Your task to perform on an android device: turn off sleep mode Image 0: 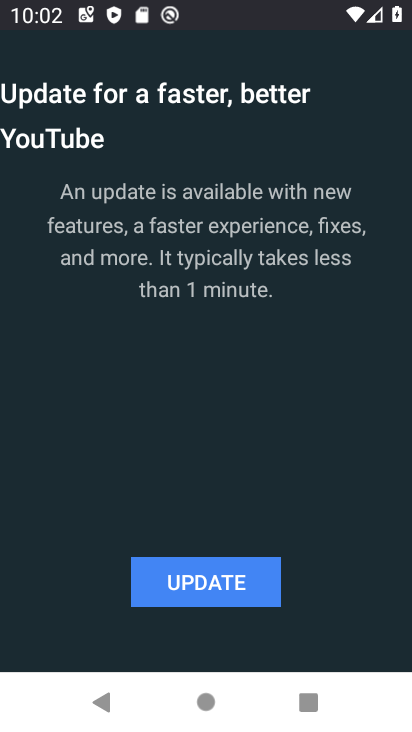
Step 0: click (174, 607)
Your task to perform on an android device: turn off sleep mode Image 1: 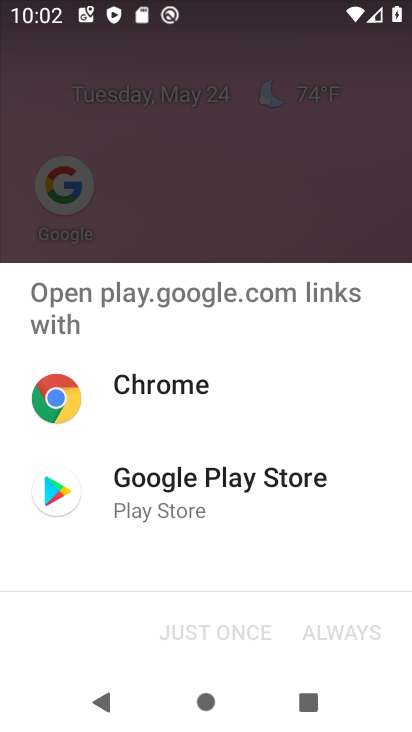
Step 1: press home button
Your task to perform on an android device: turn off sleep mode Image 2: 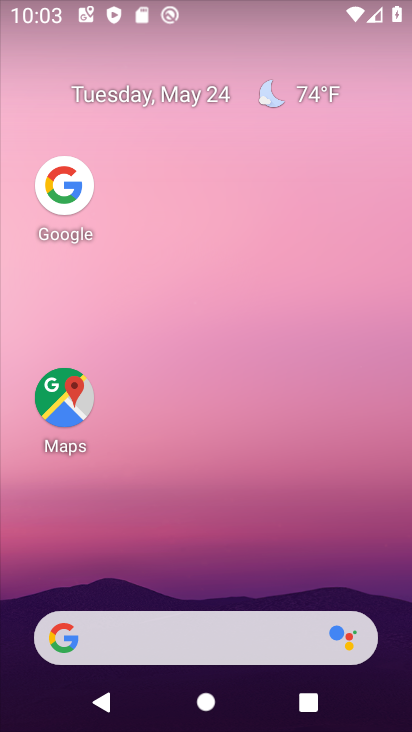
Step 2: drag from (221, 564) to (213, 52)
Your task to perform on an android device: turn off sleep mode Image 3: 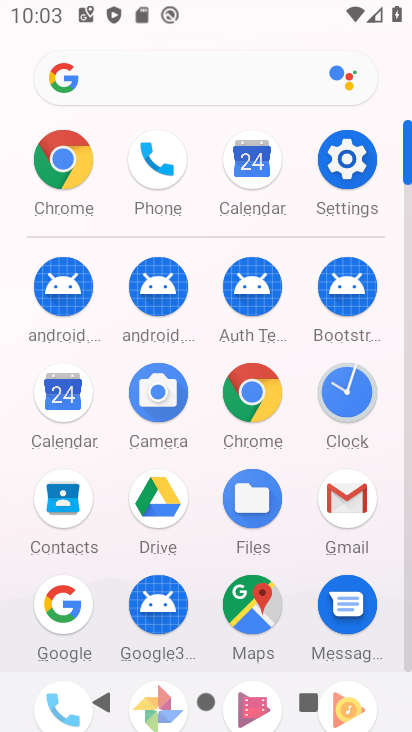
Step 3: click (344, 179)
Your task to perform on an android device: turn off sleep mode Image 4: 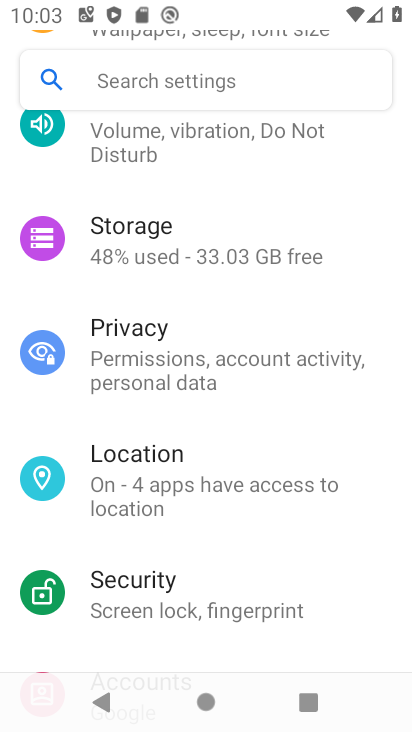
Step 4: drag from (292, 178) to (200, 530)
Your task to perform on an android device: turn off sleep mode Image 5: 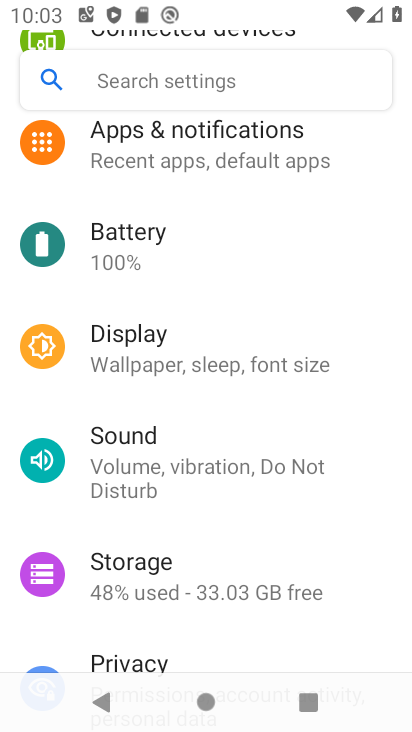
Step 5: click (90, 373)
Your task to perform on an android device: turn off sleep mode Image 6: 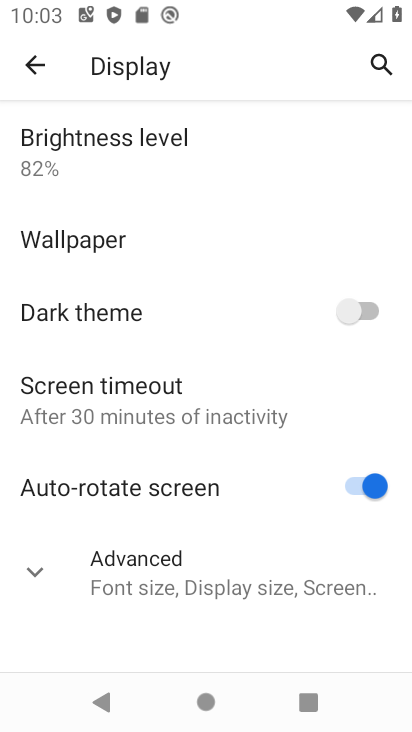
Step 6: task complete